Your task to perform on an android device: manage bookmarks in the chrome app Image 0: 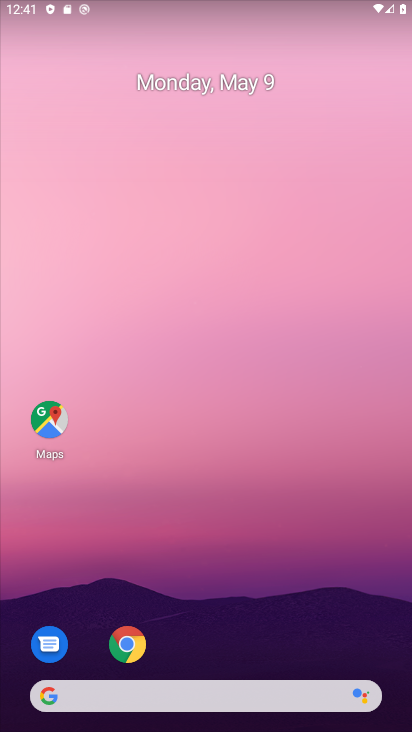
Step 0: click (121, 651)
Your task to perform on an android device: manage bookmarks in the chrome app Image 1: 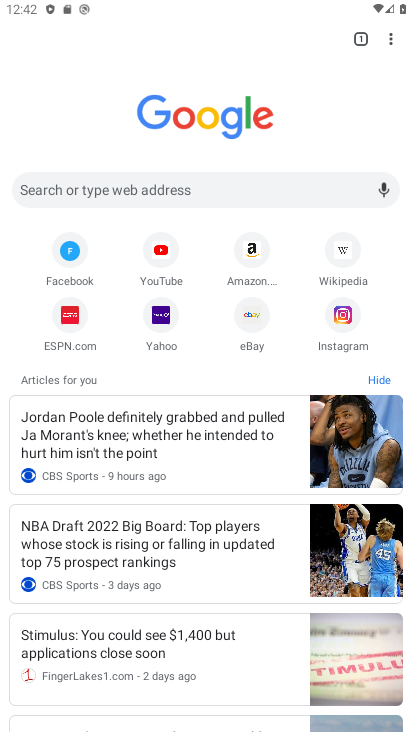
Step 1: click (390, 40)
Your task to perform on an android device: manage bookmarks in the chrome app Image 2: 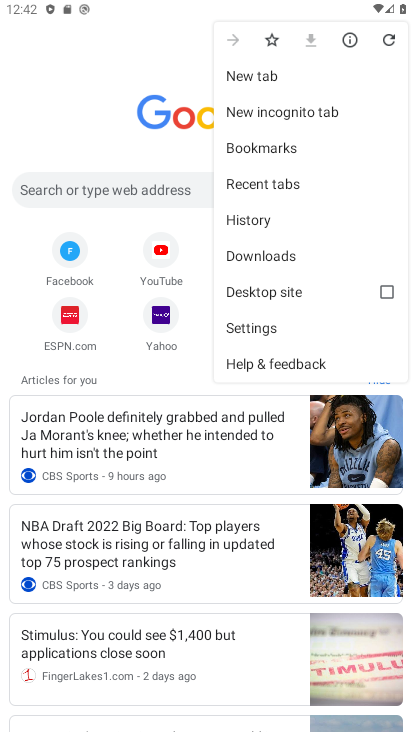
Step 2: click (258, 146)
Your task to perform on an android device: manage bookmarks in the chrome app Image 3: 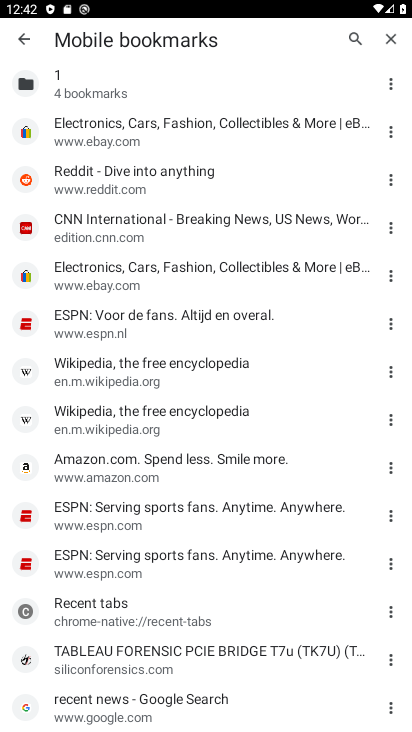
Step 3: click (391, 131)
Your task to perform on an android device: manage bookmarks in the chrome app Image 4: 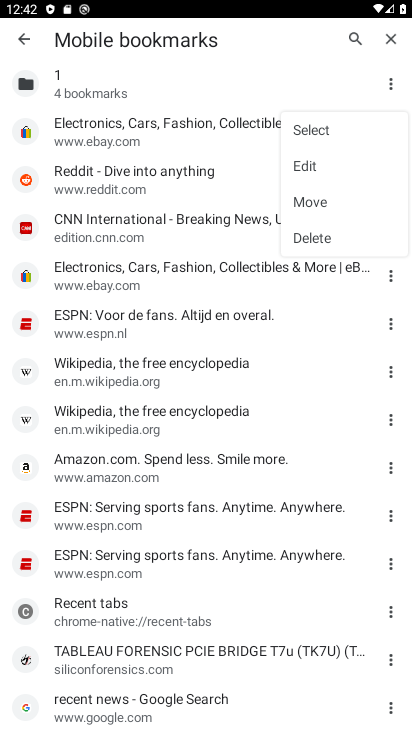
Step 4: click (308, 235)
Your task to perform on an android device: manage bookmarks in the chrome app Image 5: 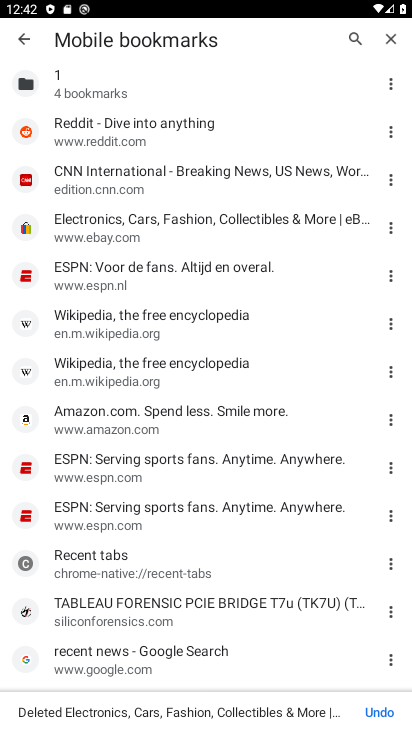
Step 5: task complete